Your task to perform on an android device: turn off wifi Image 0: 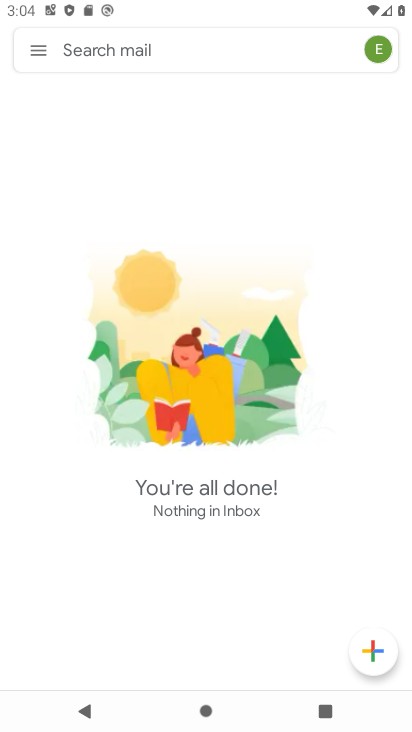
Step 0: press home button
Your task to perform on an android device: turn off wifi Image 1: 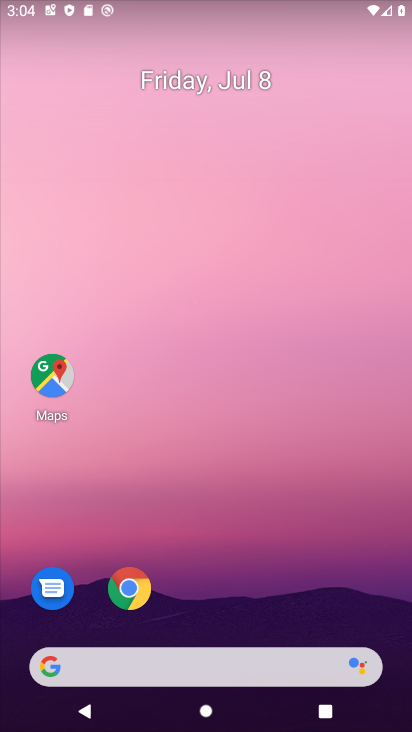
Step 1: drag from (216, 680) to (293, 107)
Your task to perform on an android device: turn off wifi Image 2: 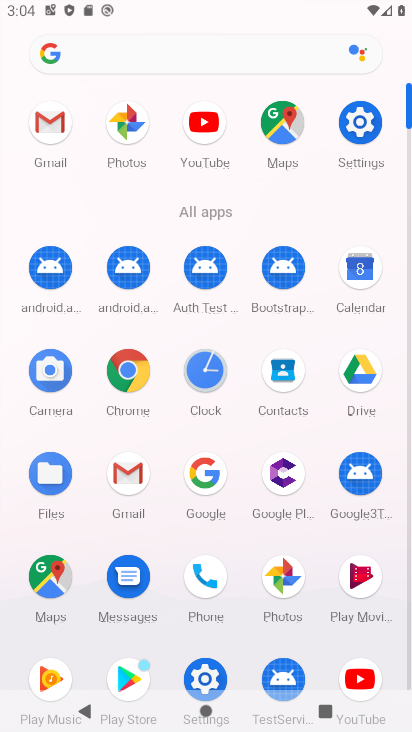
Step 2: click (359, 123)
Your task to perform on an android device: turn off wifi Image 3: 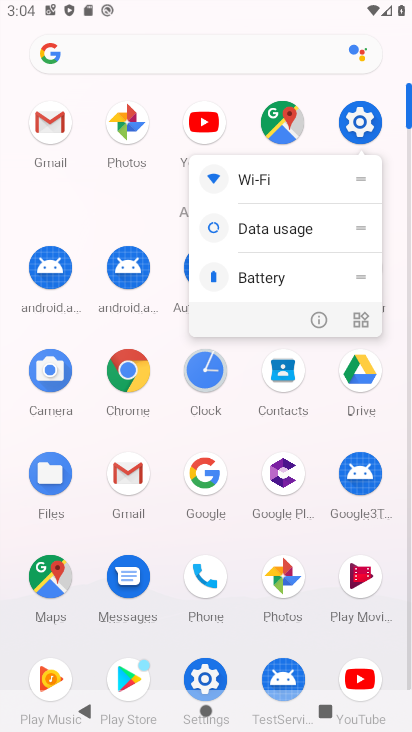
Step 3: click (361, 119)
Your task to perform on an android device: turn off wifi Image 4: 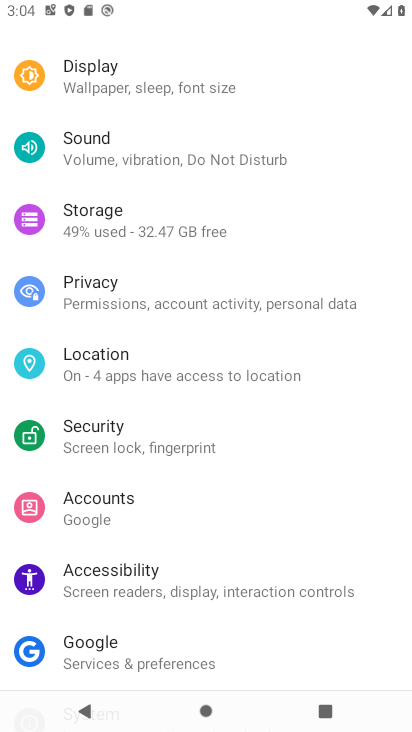
Step 4: drag from (311, 257) to (246, 546)
Your task to perform on an android device: turn off wifi Image 5: 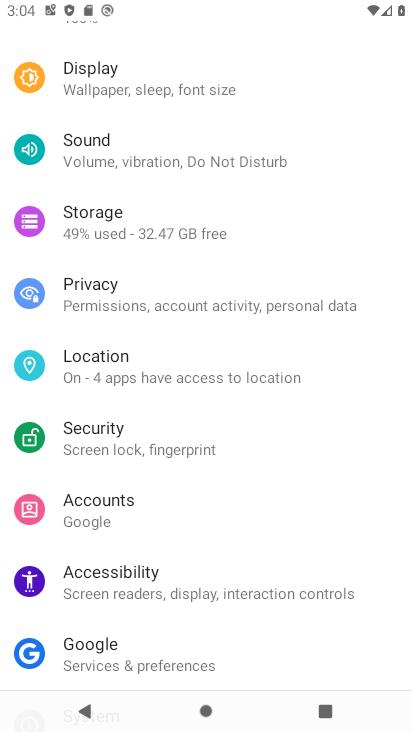
Step 5: drag from (216, 67) to (118, 538)
Your task to perform on an android device: turn off wifi Image 6: 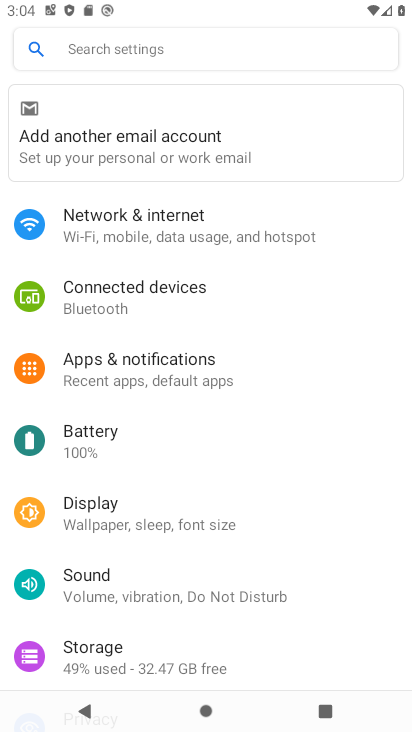
Step 6: click (139, 244)
Your task to perform on an android device: turn off wifi Image 7: 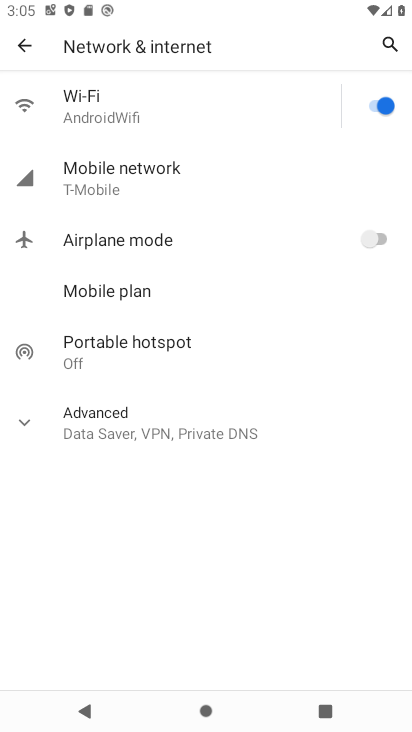
Step 7: click (375, 96)
Your task to perform on an android device: turn off wifi Image 8: 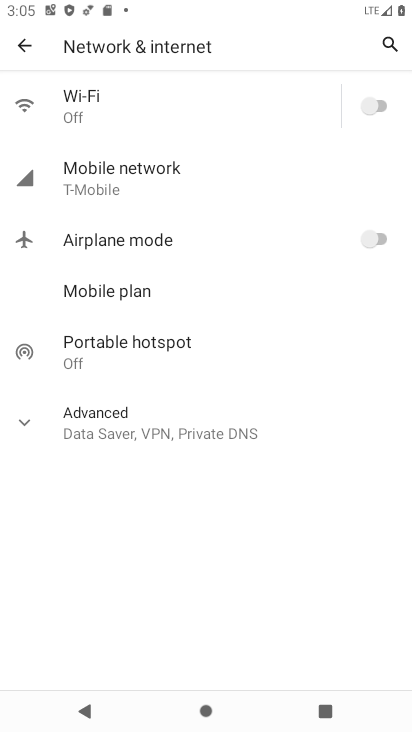
Step 8: task complete